Your task to perform on an android device: install app "DoorDash - Dasher" Image 0: 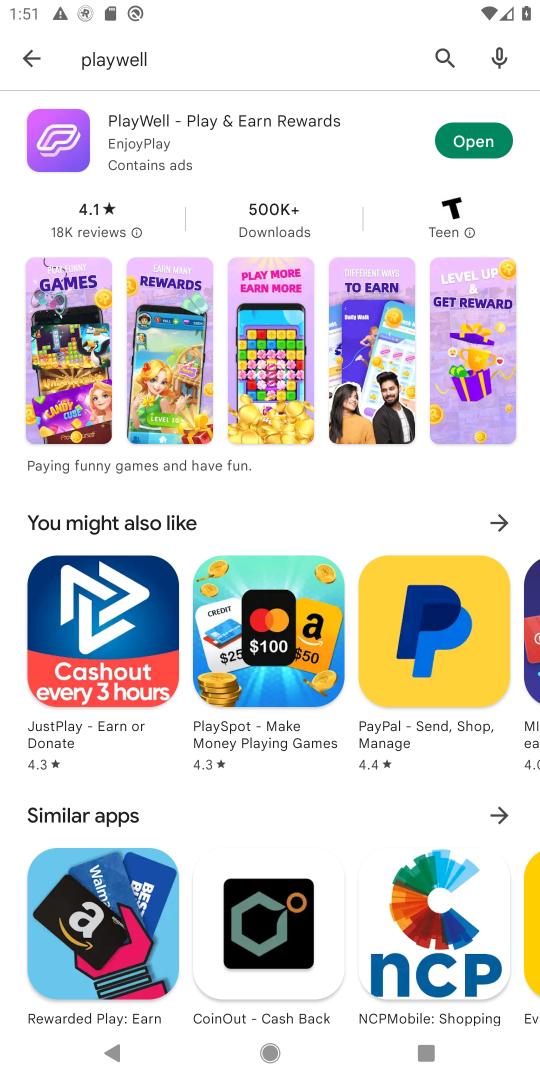
Step 0: press home button
Your task to perform on an android device: install app "DoorDash - Dasher" Image 1: 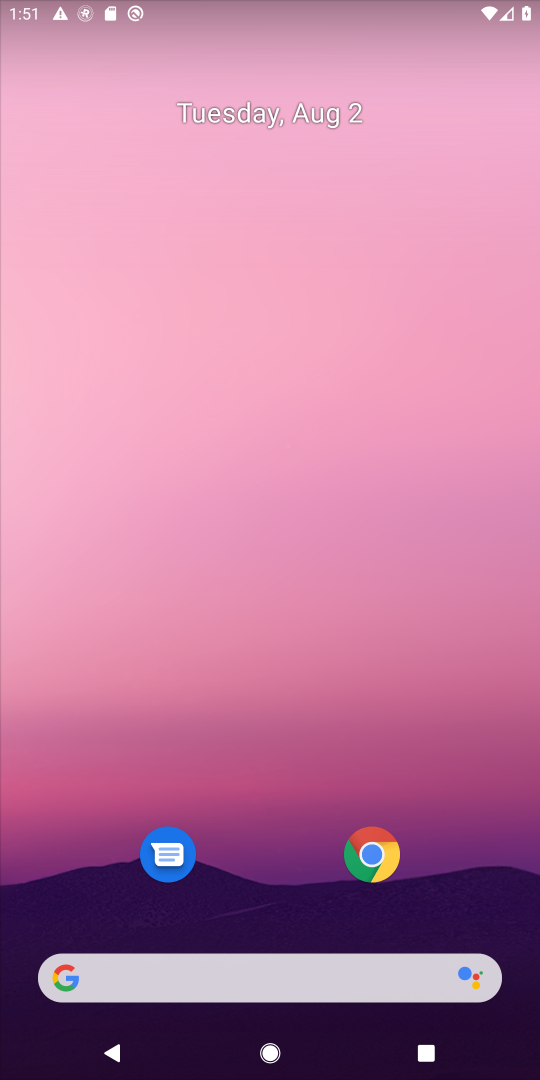
Step 1: drag from (295, 1071) to (234, 82)
Your task to perform on an android device: install app "DoorDash - Dasher" Image 2: 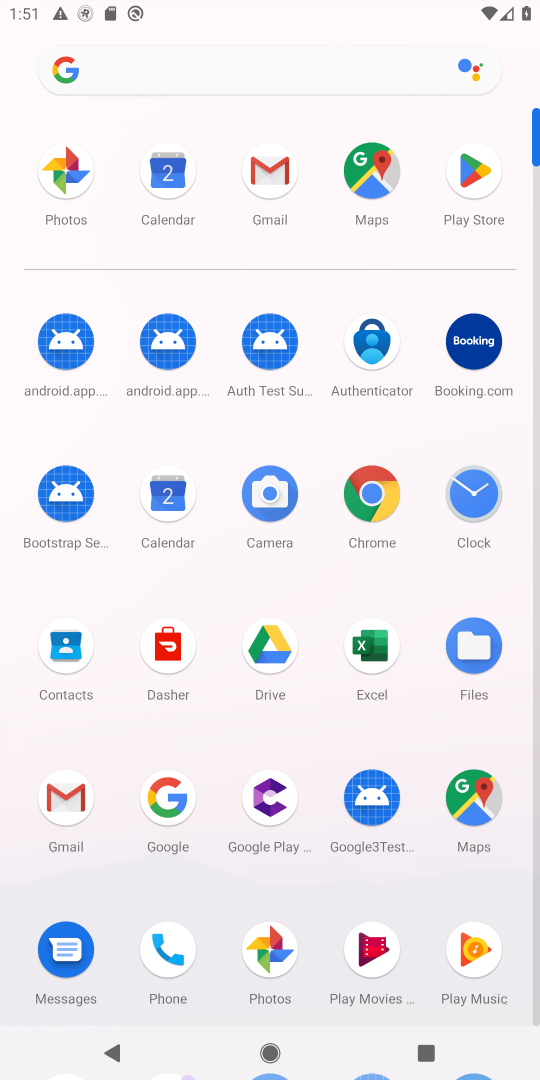
Step 2: click (465, 165)
Your task to perform on an android device: install app "DoorDash - Dasher" Image 3: 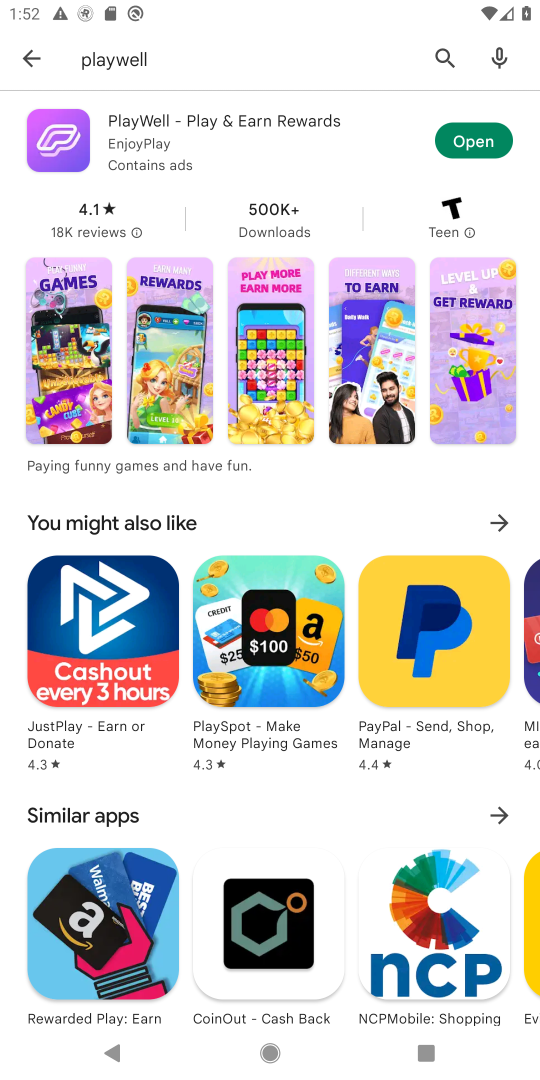
Step 3: click (443, 50)
Your task to perform on an android device: install app "DoorDash - Dasher" Image 4: 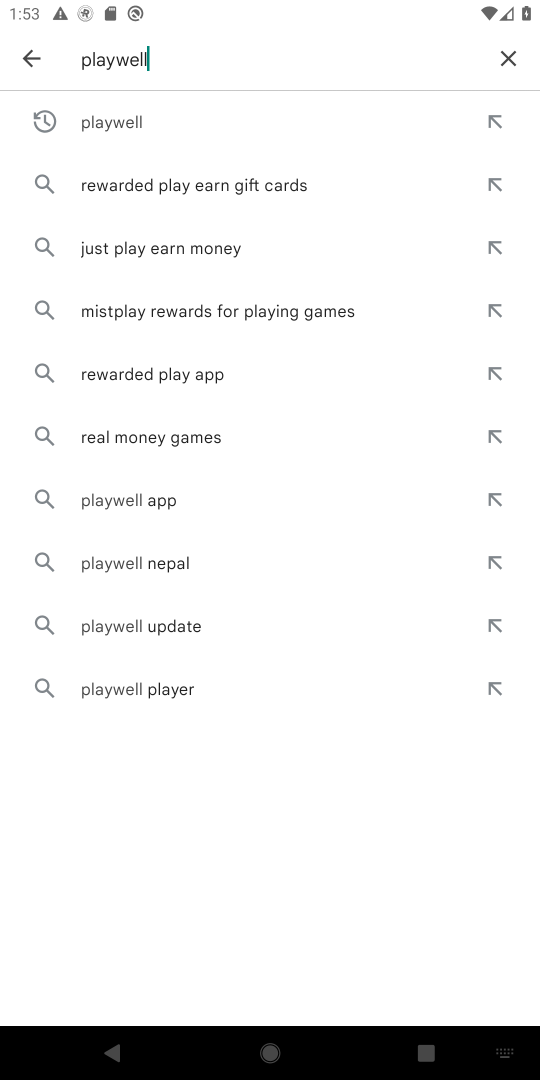
Step 4: click (507, 50)
Your task to perform on an android device: install app "DoorDash - Dasher" Image 5: 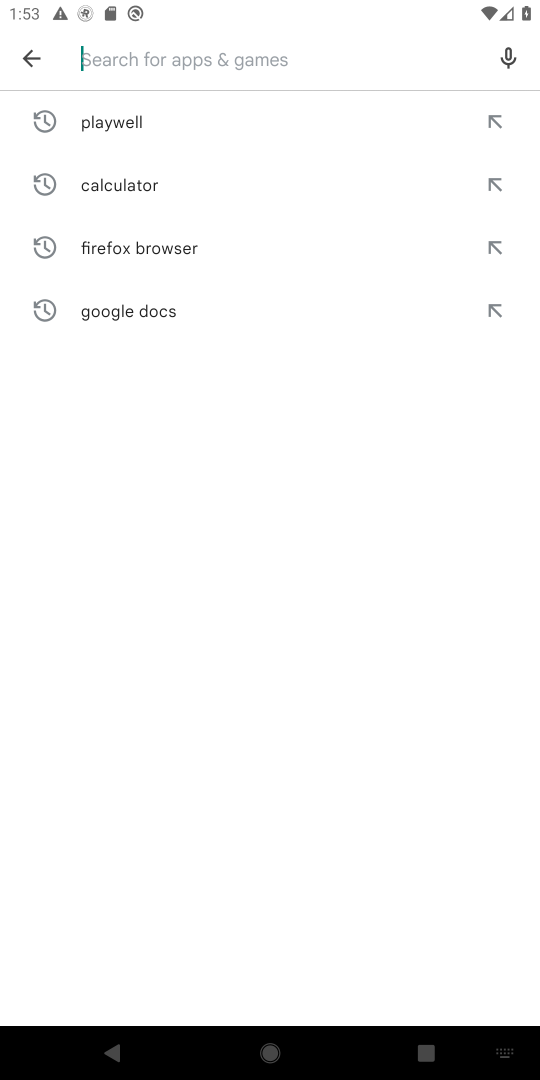
Step 5: type ""
Your task to perform on an android device: install app "DoorDash - Dasher" Image 6: 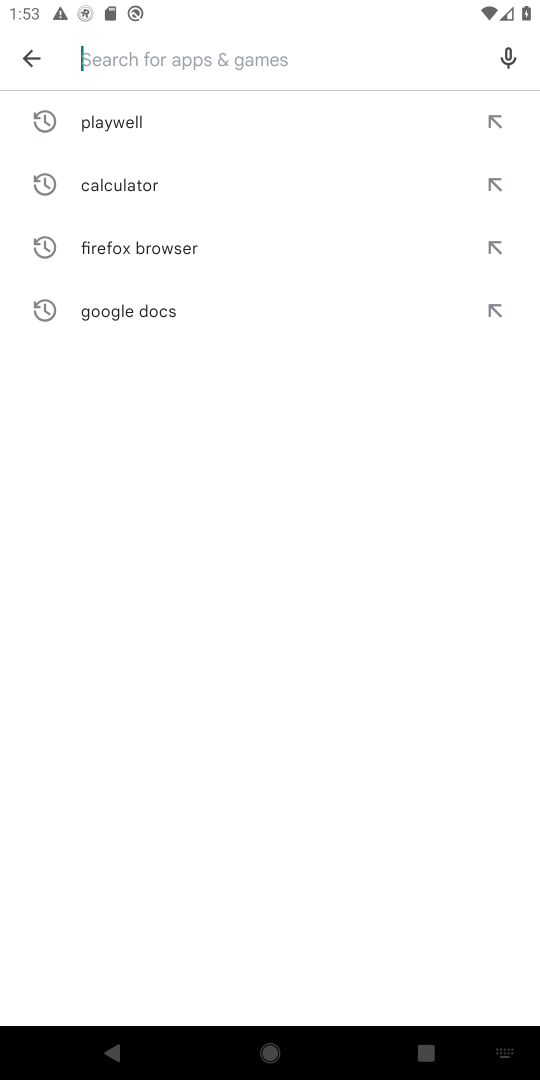
Step 6: type "DoorDash - Dasher"
Your task to perform on an android device: install app "DoorDash - Dasher" Image 7: 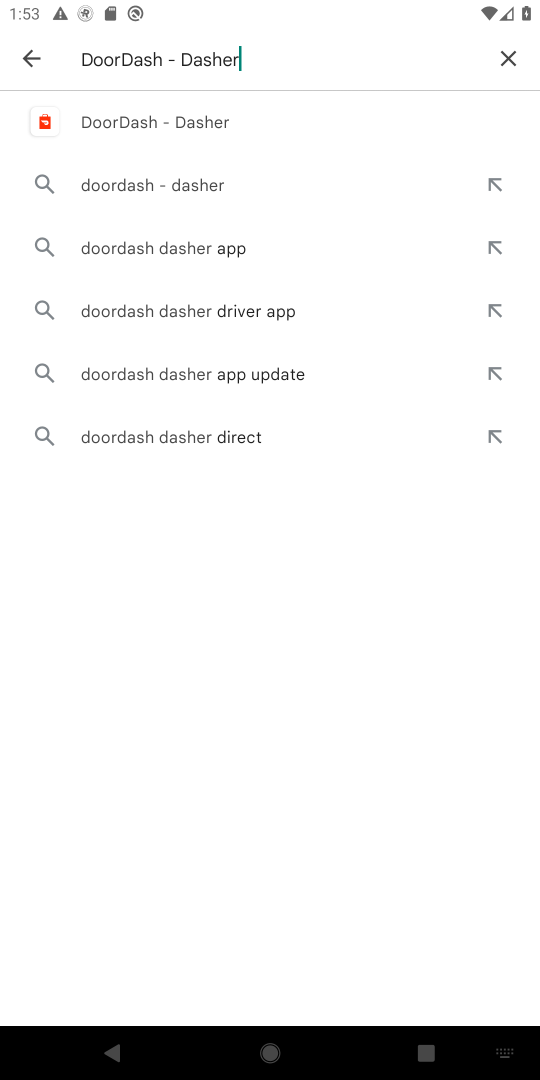
Step 7: click (207, 119)
Your task to perform on an android device: install app "DoorDash - Dasher" Image 8: 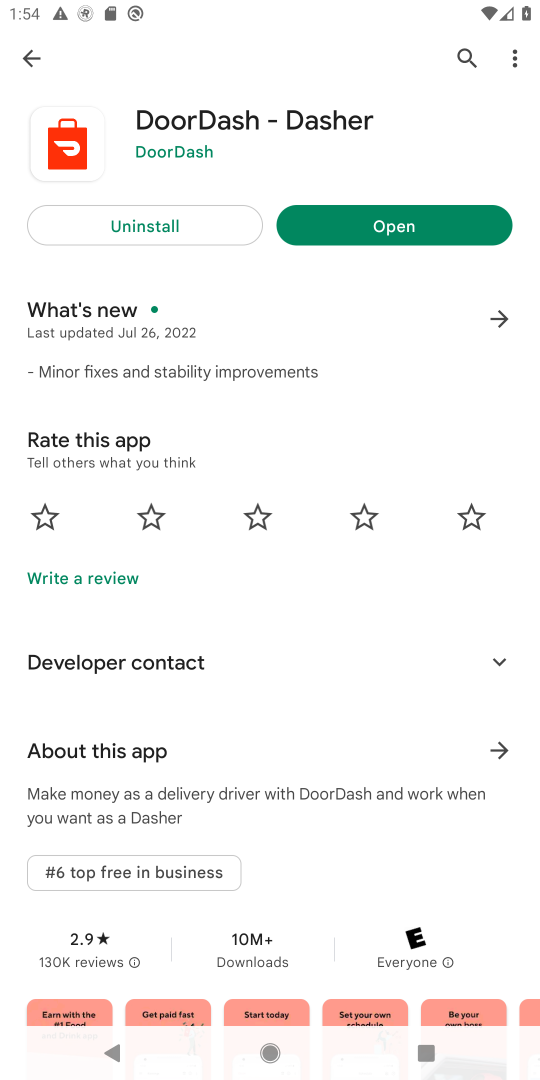
Step 8: task complete